Your task to perform on an android device: Open maps Image 0: 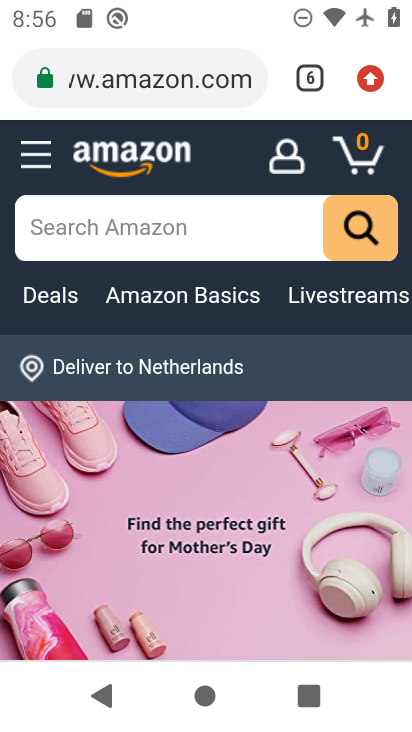
Step 0: press home button
Your task to perform on an android device: Open maps Image 1: 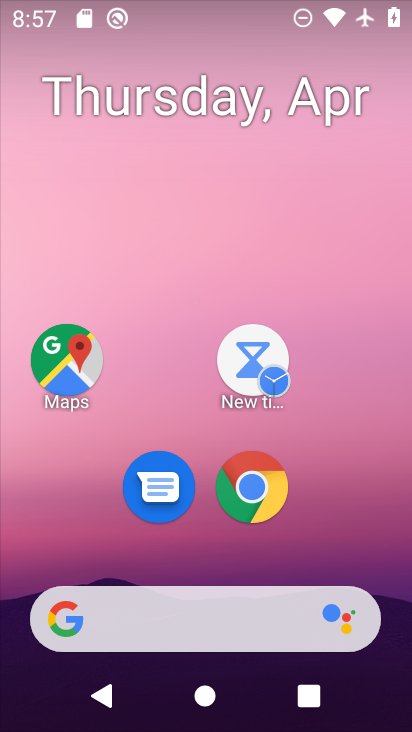
Step 1: click (49, 377)
Your task to perform on an android device: Open maps Image 2: 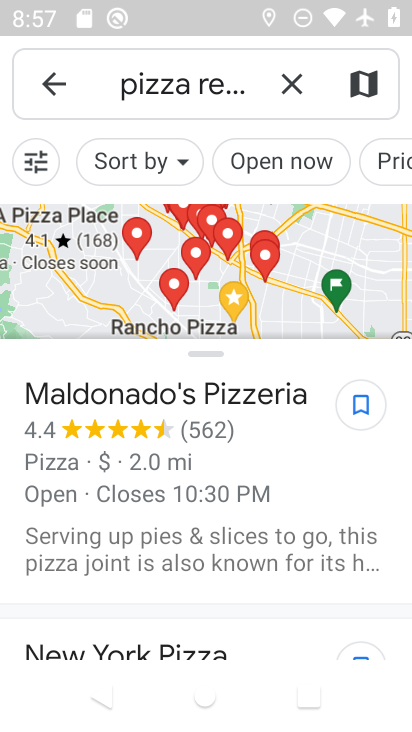
Step 2: task complete